Your task to perform on an android device: turn off javascript in the chrome app Image 0: 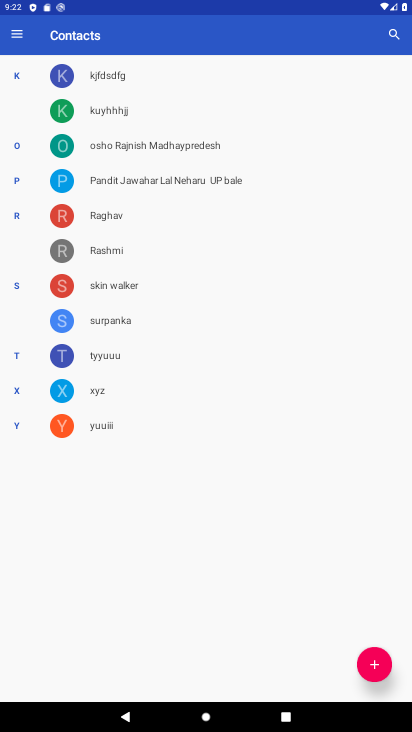
Step 0: press home button
Your task to perform on an android device: turn off javascript in the chrome app Image 1: 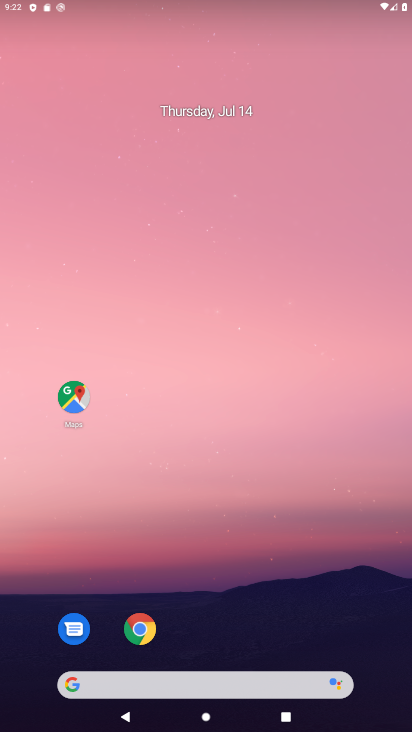
Step 1: click (141, 633)
Your task to perform on an android device: turn off javascript in the chrome app Image 2: 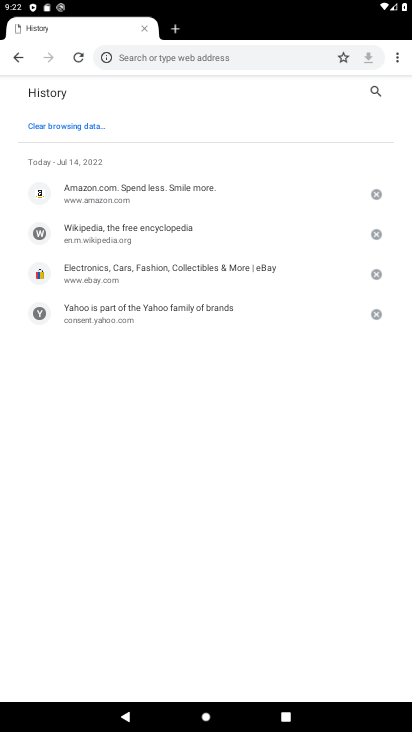
Step 2: click (394, 59)
Your task to perform on an android device: turn off javascript in the chrome app Image 3: 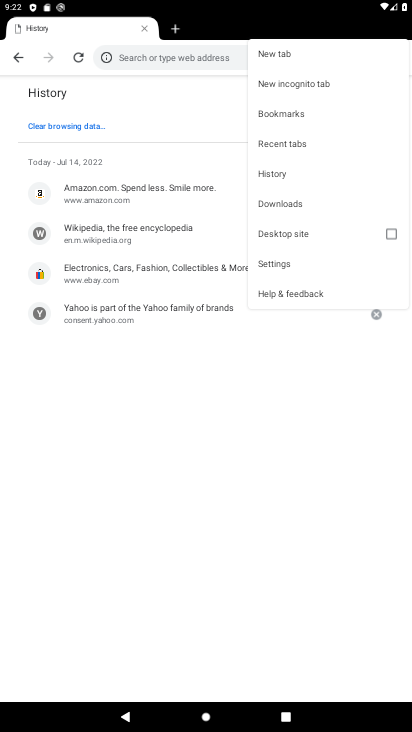
Step 3: click (284, 258)
Your task to perform on an android device: turn off javascript in the chrome app Image 4: 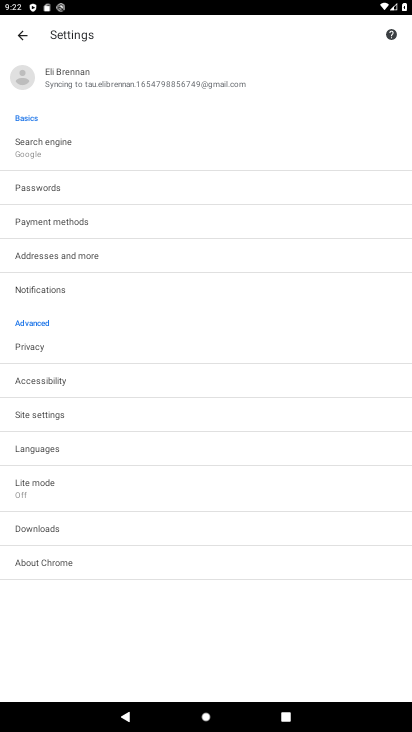
Step 4: click (33, 415)
Your task to perform on an android device: turn off javascript in the chrome app Image 5: 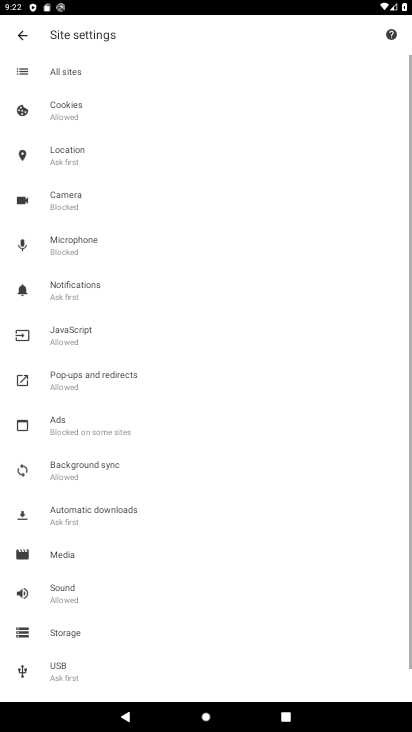
Step 5: click (87, 332)
Your task to perform on an android device: turn off javascript in the chrome app Image 6: 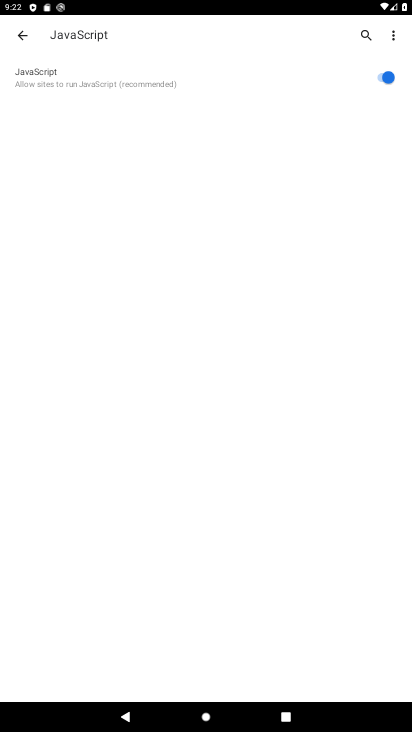
Step 6: click (382, 78)
Your task to perform on an android device: turn off javascript in the chrome app Image 7: 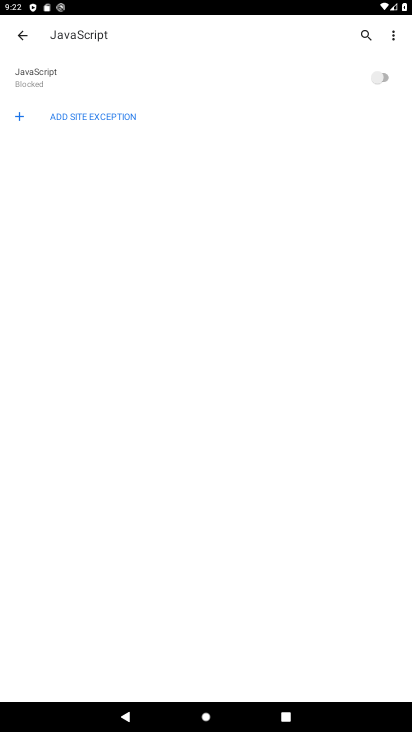
Step 7: task complete